Your task to perform on an android device: toggle airplane mode Image 0: 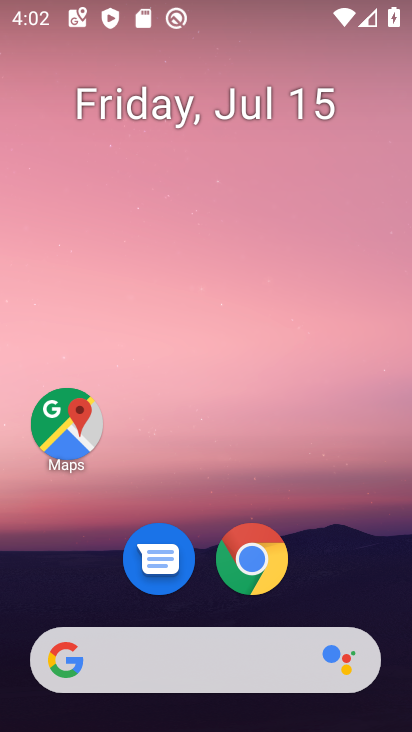
Step 0: drag from (356, 8) to (180, 537)
Your task to perform on an android device: toggle airplane mode Image 1: 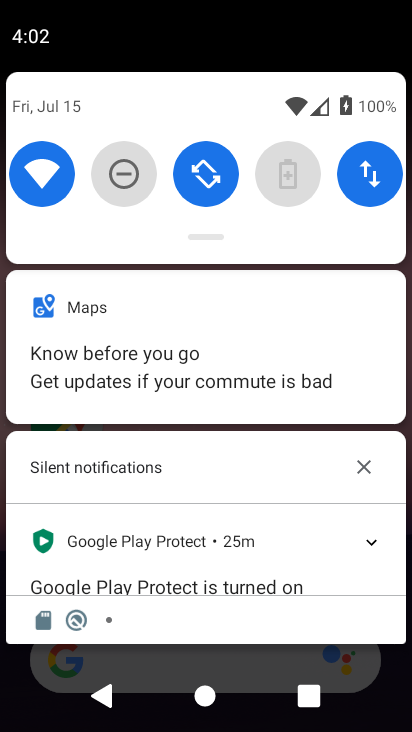
Step 1: drag from (199, 227) to (196, 730)
Your task to perform on an android device: toggle airplane mode Image 2: 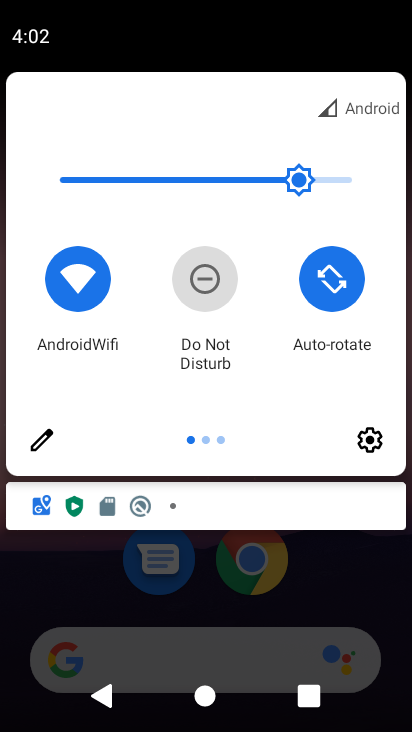
Step 2: drag from (348, 297) to (0, 391)
Your task to perform on an android device: toggle airplane mode Image 3: 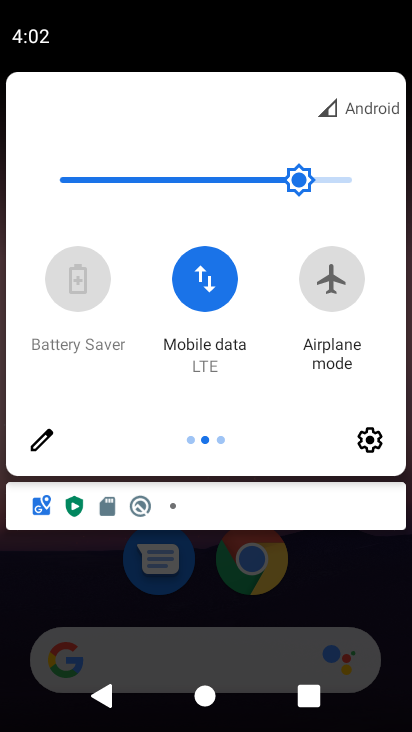
Step 3: click (327, 277)
Your task to perform on an android device: toggle airplane mode Image 4: 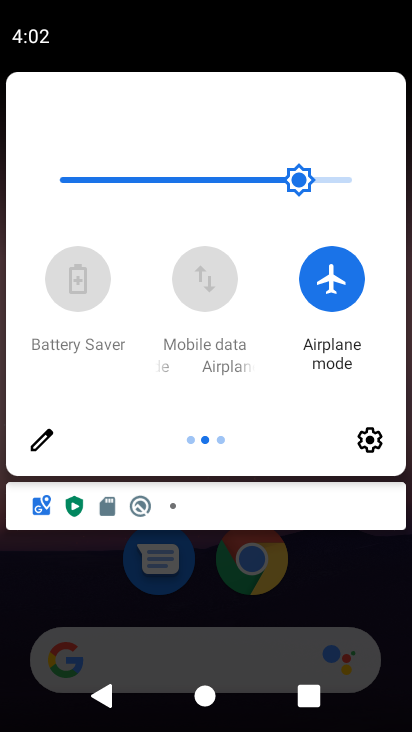
Step 4: task complete